Your task to perform on an android device: What's the weather going to be tomorrow? Image 0: 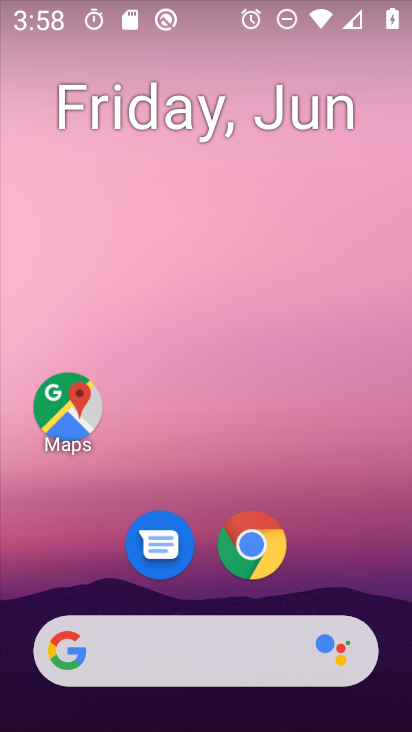
Step 0: click (185, 665)
Your task to perform on an android device: What's the weather going to be tomorrow? Image 1: 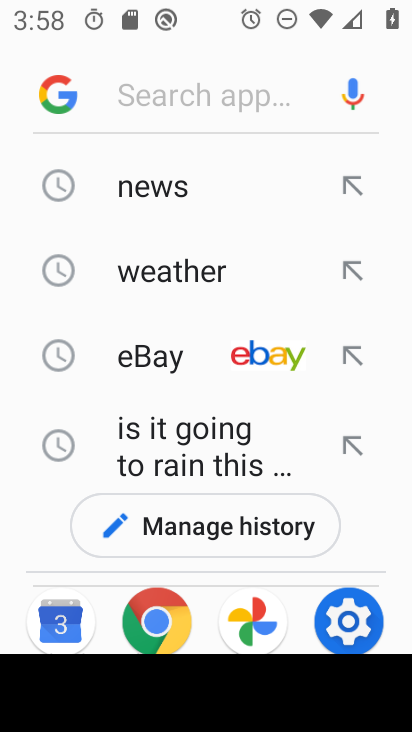
Step 1: type "what's the weather going to be tomorrow"
Your task to perform on an android device: What's the weather going to be tomorrow? Image 2: 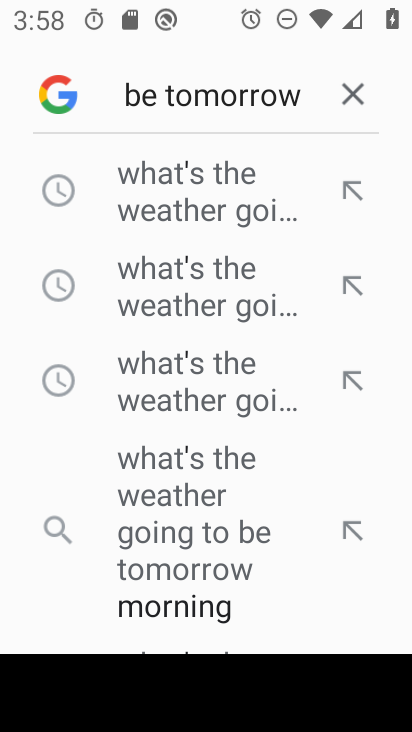
Step 2: click (221, 203)
Your task to perform on an android device: What's the weather going to be tomorrow? Image 3: 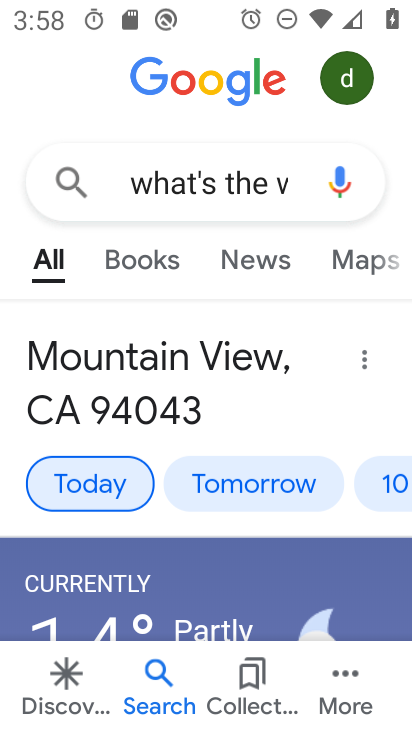
Step 3: click (256, 480)
Your task to perform on an android device: What's the weather going to be tomorrow? Image 4: 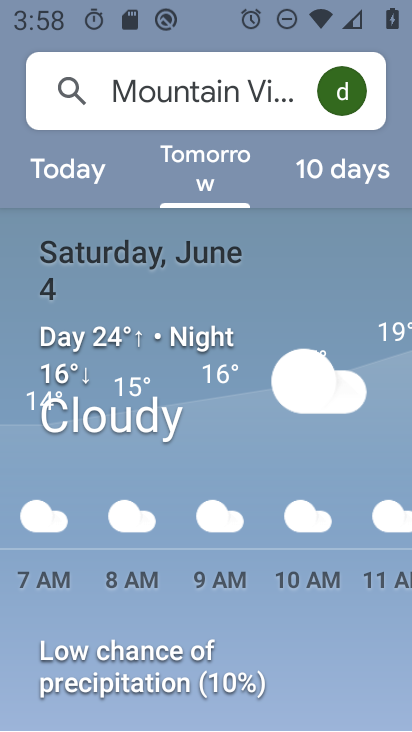
Step 4: task complete